Your task to perform on an android device: turn off notifications in google photos Image 0: 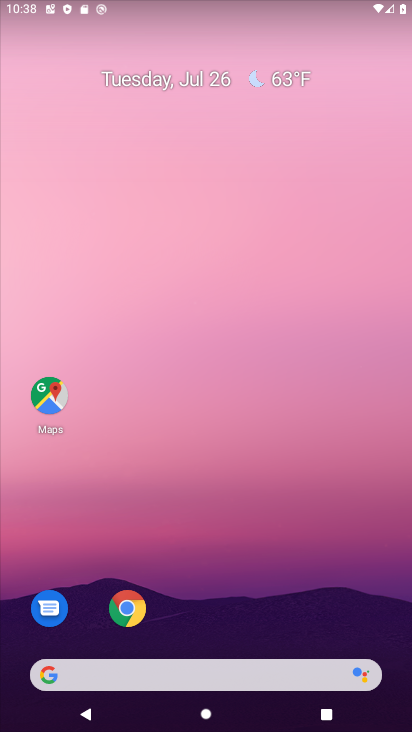
Step 0: press home button
Your task to perform on an android device: turn off notifications in google photos Image 1: 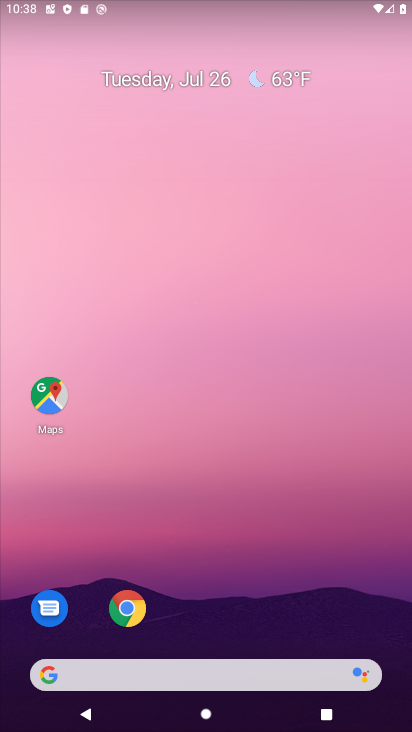
Step 1: click (205, 180)
Your task to perform on an android device: turn off notifications in google photos Image 2: 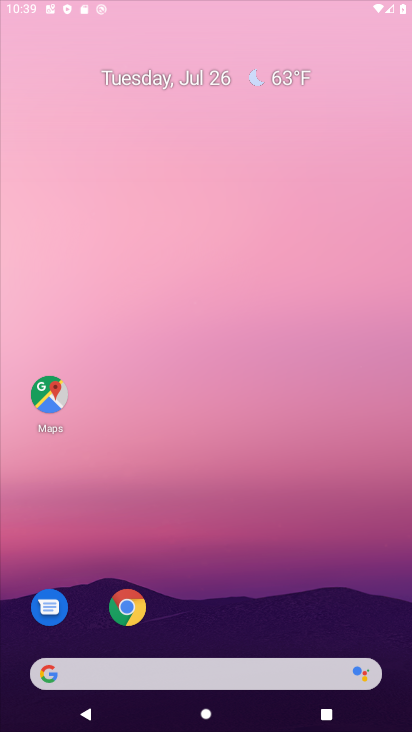
Step 2: drag from (227, 584) to (245, 0)
Your task to perform on an android device: turn off notifications in google photos Image 3: 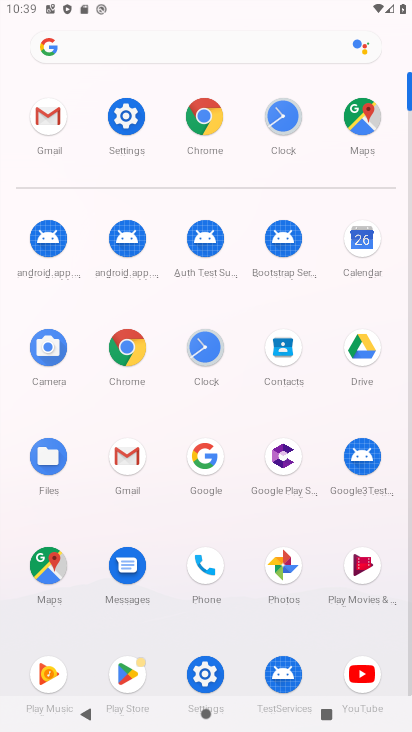
Step 3: click (286, 566)
Your task to perform on an android device: turn off notifications in google photos Image 4: 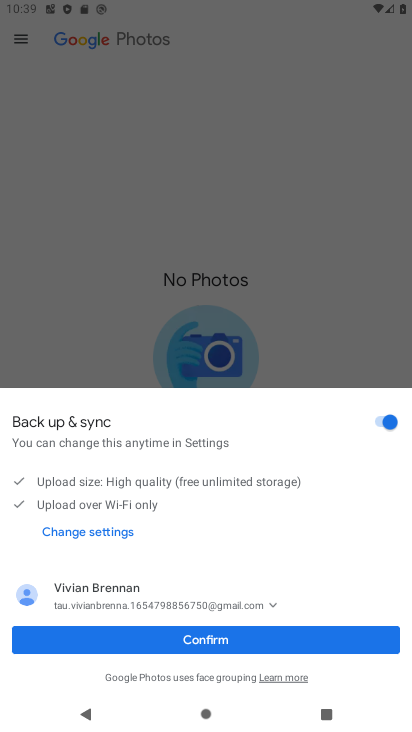
Step 4: click (102, 641)
Your task to perform on an android device: turn off notifications in google photos Image 5: 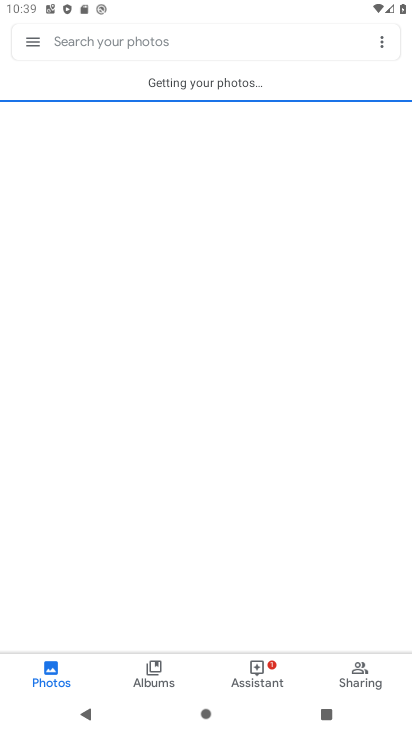
Step 5: click (34, 41)
Your task to perform on an android device: turn off notifications in google photos Image 6: 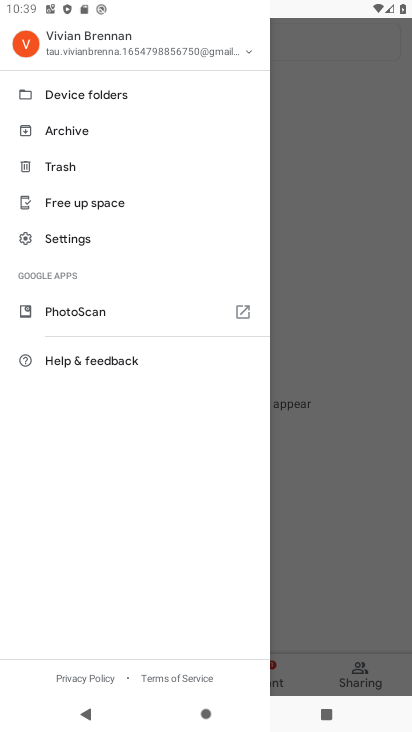
Step 6: click (64, 241)
Your task to perform on an android device: turn off notifications in google photos Image 7: 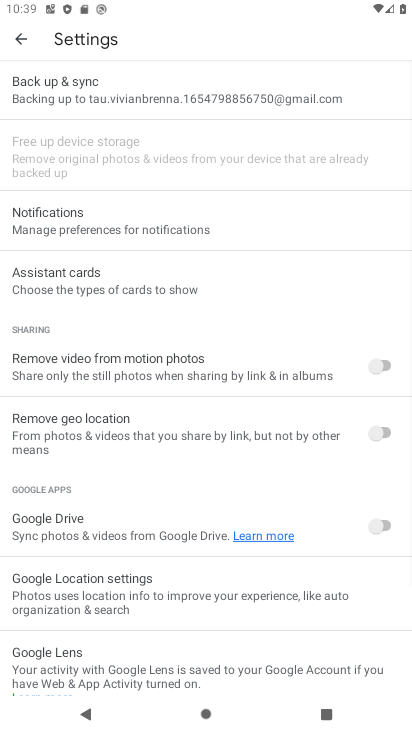
Step 7: click (63, 222)
Your task to perform on an android device: turn off notifications in google photos Image 8: 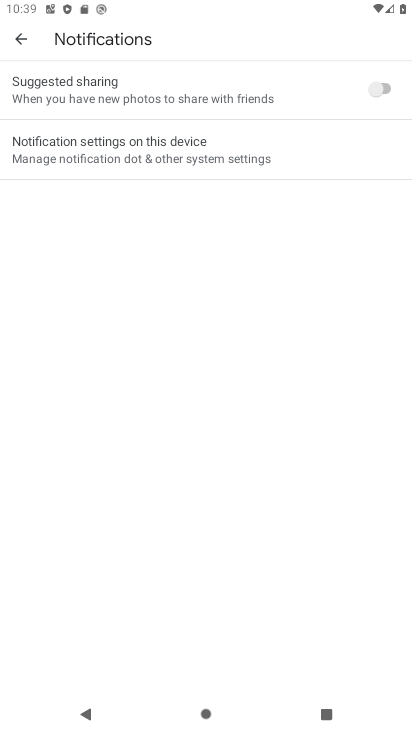
Step 8: task complete